Your task to perform on an android device: Go to Wikipedia Image 0: 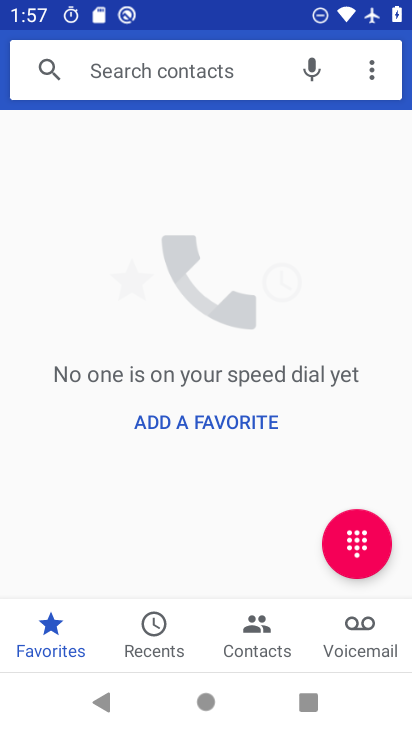
Step 0: press home button
Your task to perform on an android device: Go to Wikipedia Image 1: 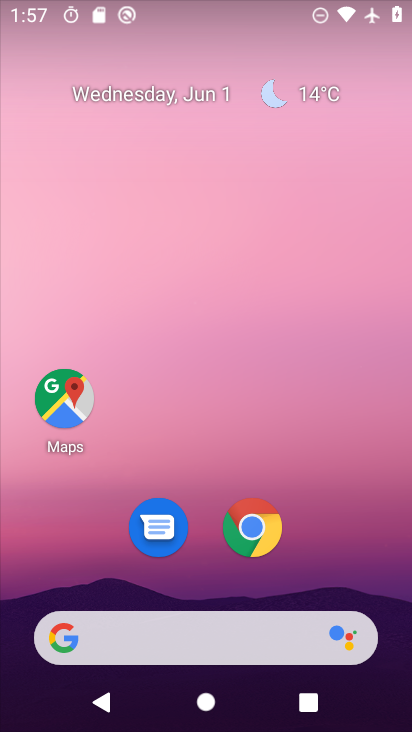
Step 1: drag from (219, 520) to (309, 26)
Your task to perform on an android device: Go to Wikipedia Image 2: 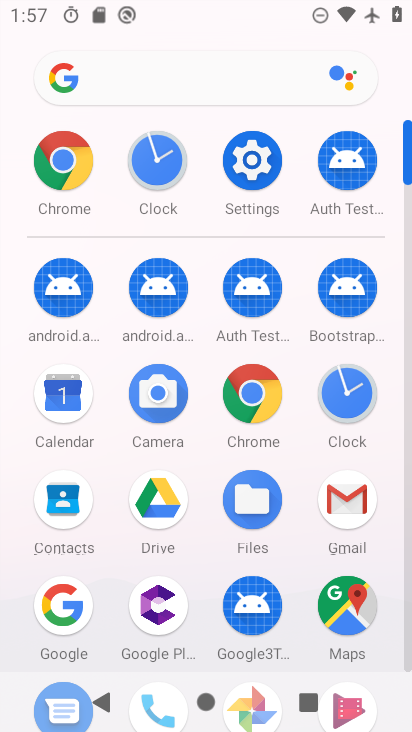
Step 2: click (76, 171)
Your task to perform on an android device: Go to Wikipedia Image 3: 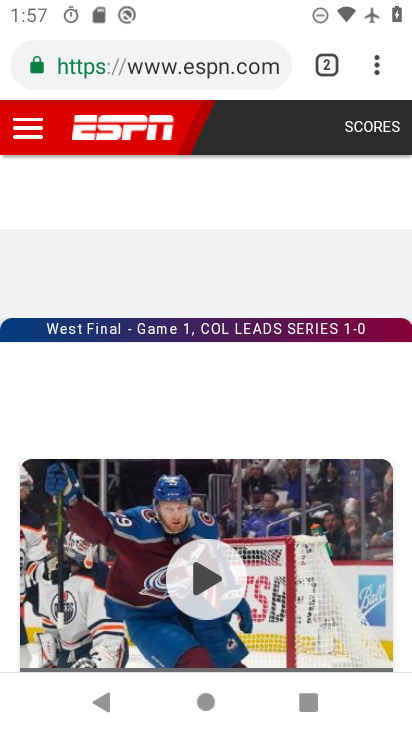
Step 3: click (183, 70)
Your task to perform on an android device: Go to Wikipedia Image 4: 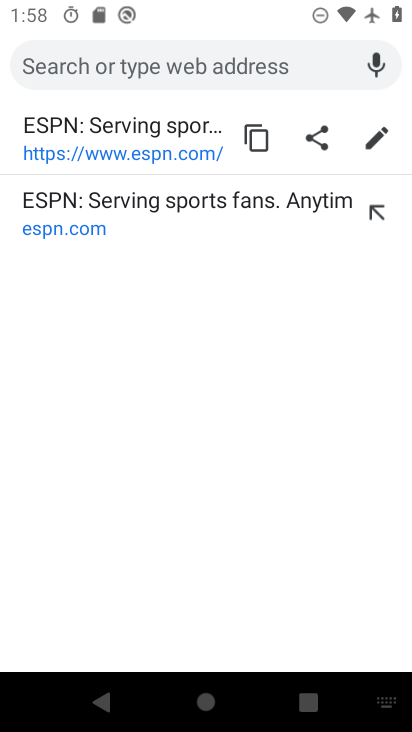
Step 4: type "wikipedia"
Your task to perform on an android device: Go to Wikipedia Image 5: 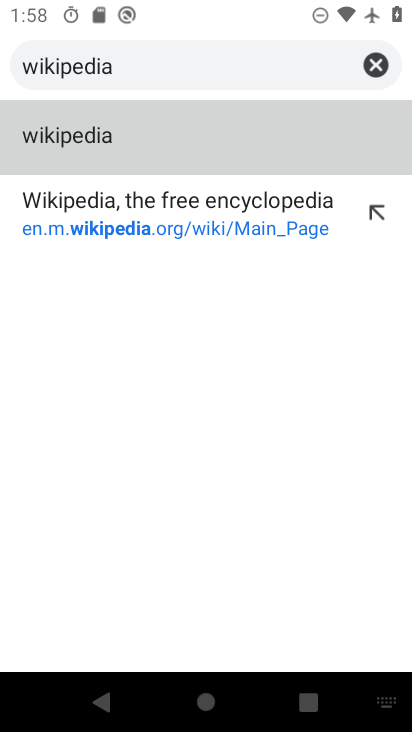
Step 5: click (84, 194)
Your task to perform on an android device: Go to Wikipedia Image 6: 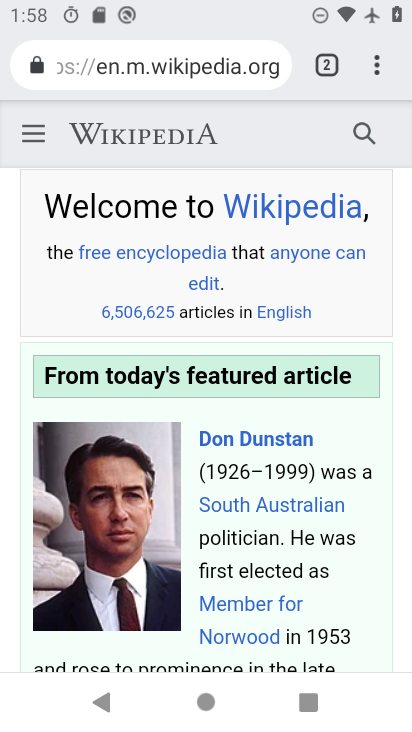
Step 6: task complete